Your task to perform on an android device: Search for vegetarian restaurants on Maps Image 0: 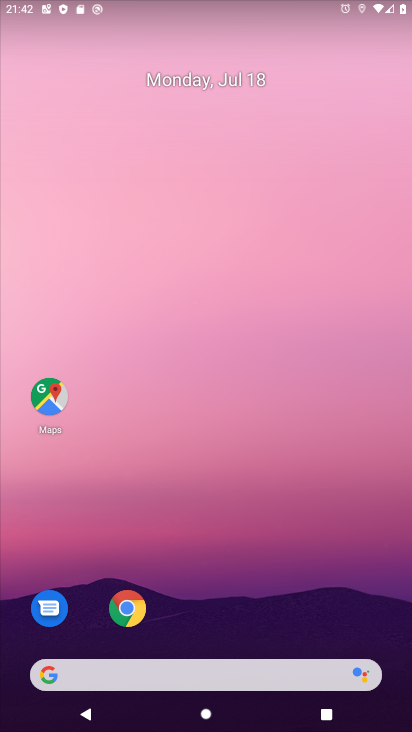
Step 0: click (45, 393)
Your task to perform on an android device: Search for vegetarian restaurants on Maps Image 1: 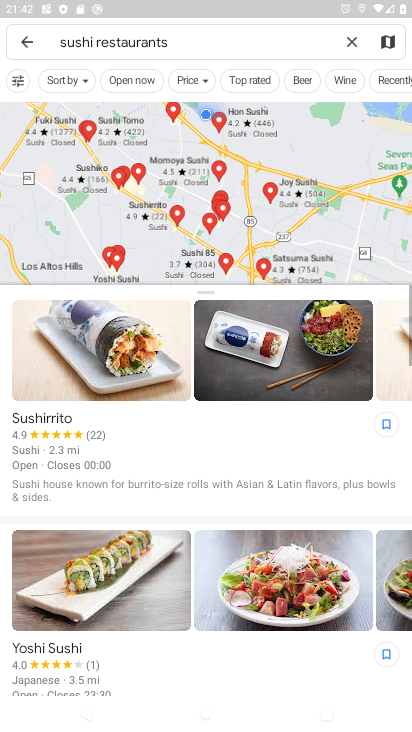
Step 1: click (346, 35)
Your task to perform on an android device: Search for vegetarian restaurants on Maps Image 2: 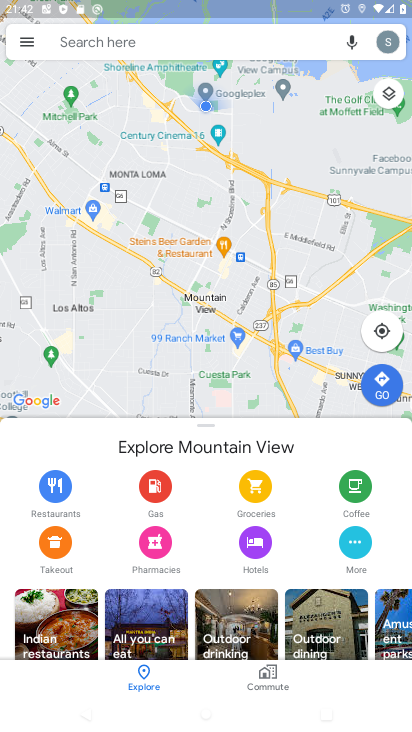
Step 2: click (98, 39)
Your task to perform on an android device: Search for vegetarian restaurants on Maps Image 3: 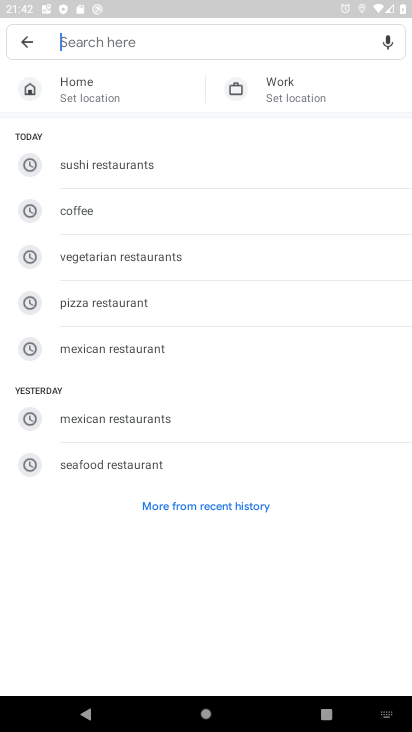
Step 3: type "vegetarian restaurants"
Your task to perform on an android device: Search for vegetarian restaurants on Maps Image 4: 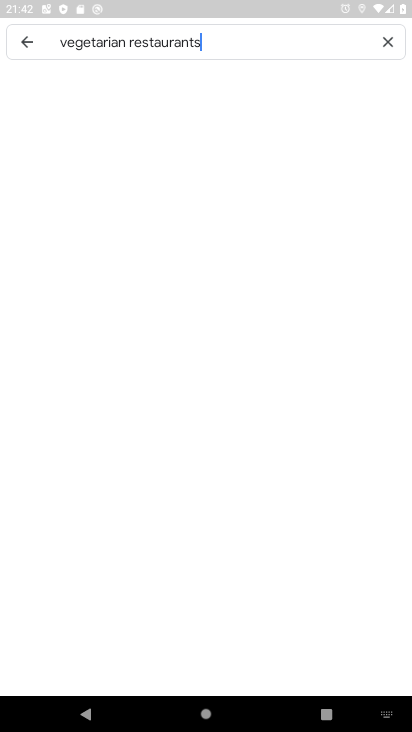
Step 4: type ""
Your task to perform on an android device: Search for vegetarian restaurants on Maps Image 5: 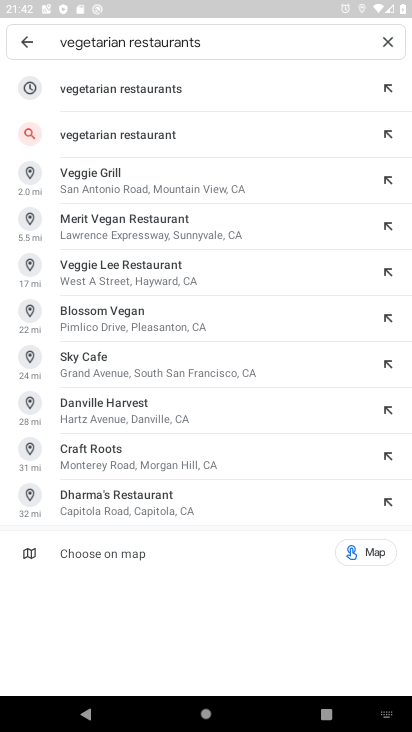
Step 5: click (170, 86)
Your task to perform on an android device: Search for vegetarian restaurants on Maps Image 6: 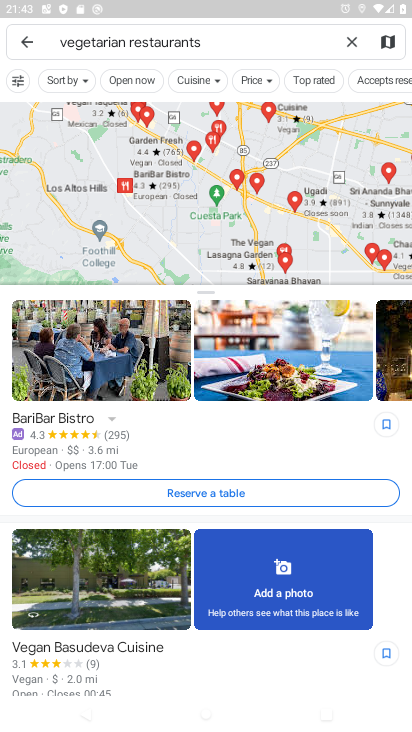
Step 6: task complete